Your task to perform on an android device: turn off javascript in the chrome app Image 0: 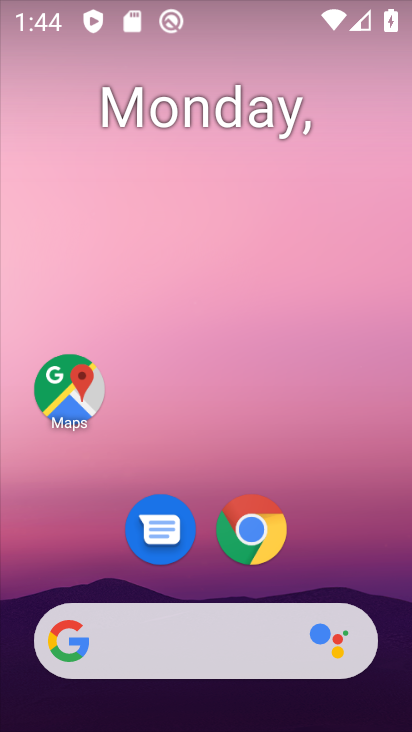
Step 0: click (253, 540)
Your task to perform on an android device: turn off javascript in the chrome app Image 1: 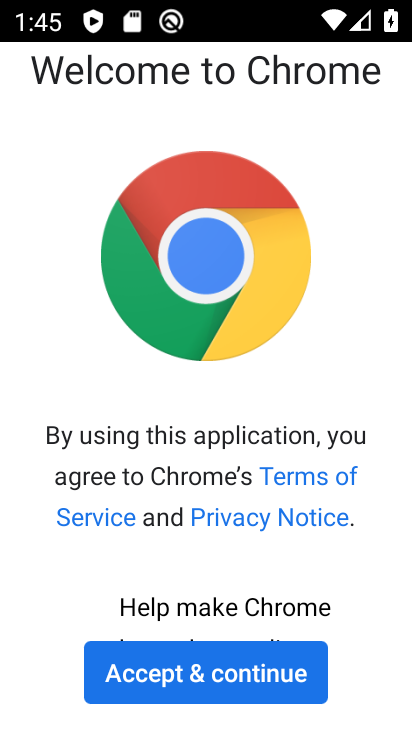
Step 1: click (235, 670)
Your task to perform on an android device: turn off javascript in the chrome app Image 2: 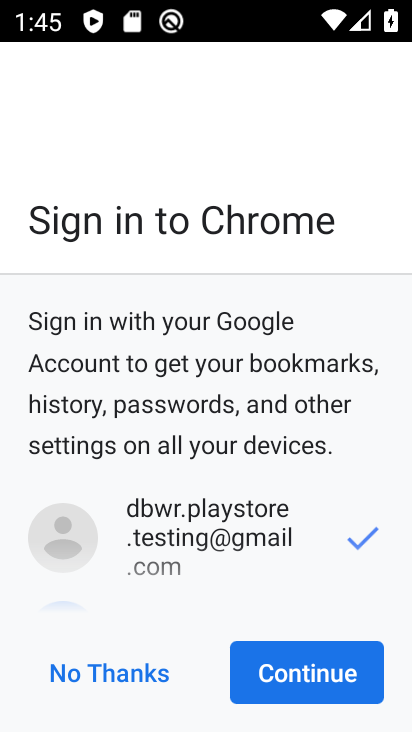
Step 2: click (290, 675)
Your task to perform on an android device: turn off javascript in the chrome app Image 3: 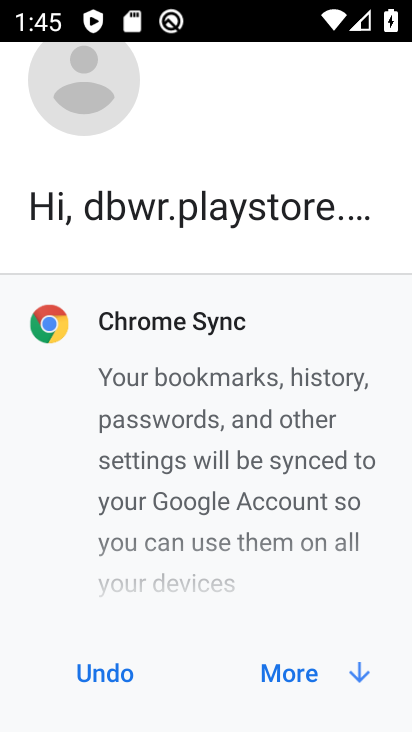
Step 3: click (294, 684)
Your task to perform on an android device: turn off javascript in the chrome app Image 4: 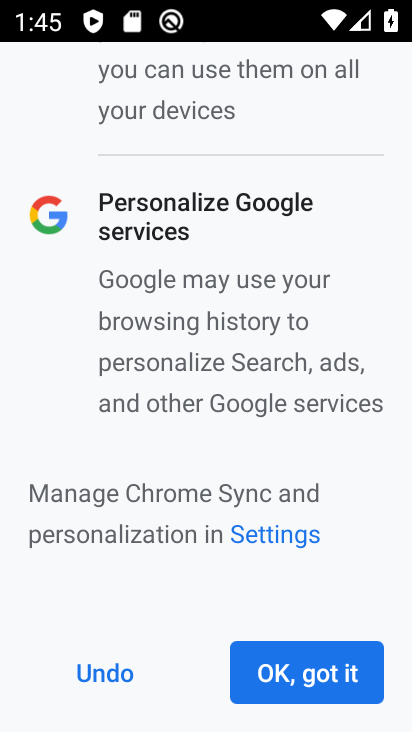
Step 4: click (296, 680)
Your task to perform on an android device: turn off javascript in the chrome app Image 5: 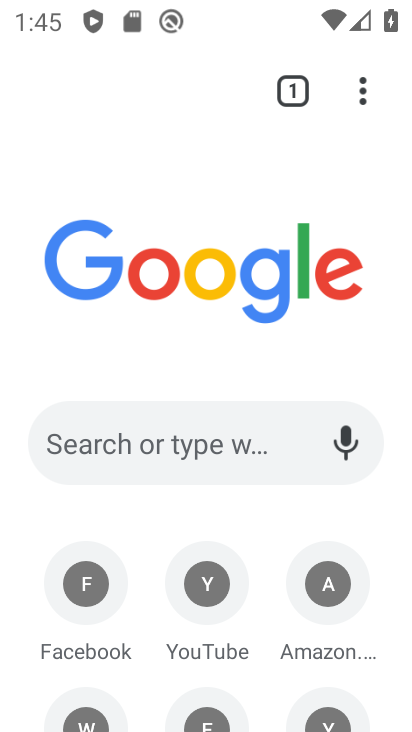
Step 5: click (369, 95)
Your task to perform on an android device: turn off javascript in the chrome app Image 6: 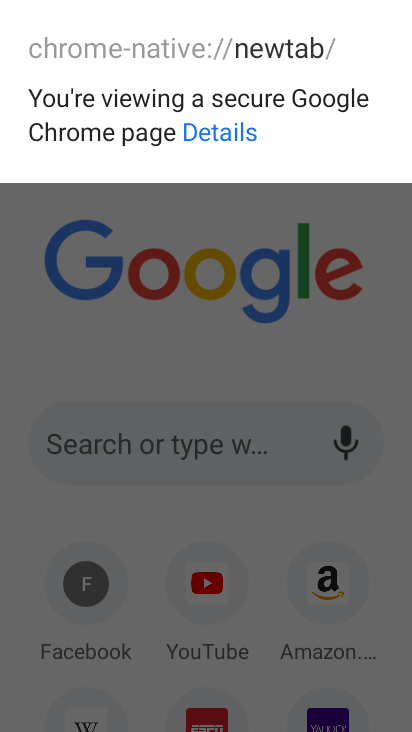
Step 6: click (220, 247)
Your task to perform on an android device: turn off javascript in the chrome app Image 7: 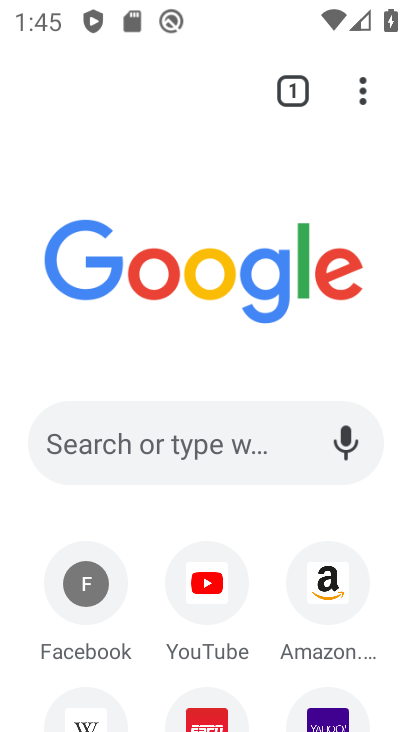
Step 7: click (373, 87)
Your task to perform on an android device: turn off javascript in the chrome app Image 8: 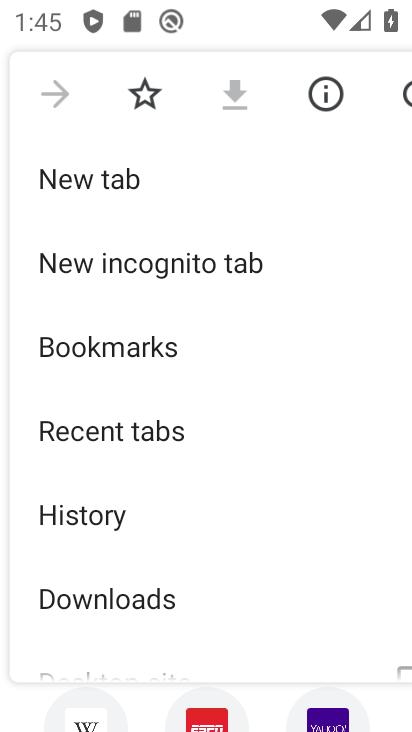
Step 8: drag from (286, 621) to (267, 161)
Your task to perform on an android device: turn off javascript in the chrome app Image 9: 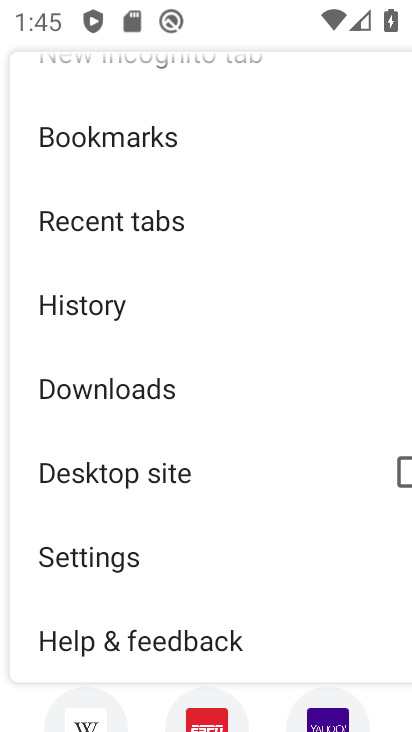
Step 9: click (129, 561)
Your task to perform on an android device: turn off javascript in the chrome app Image 10: 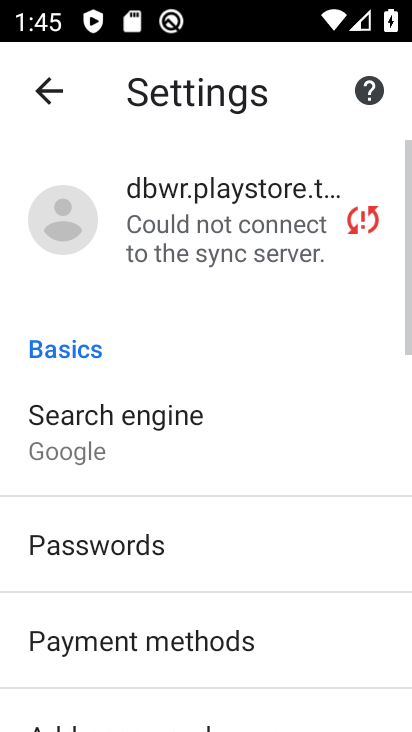
Step 10: drag from (261, 663) to (263, 191)
Your task to perform on an android device: turn off javascript in the chrome app Image 11: 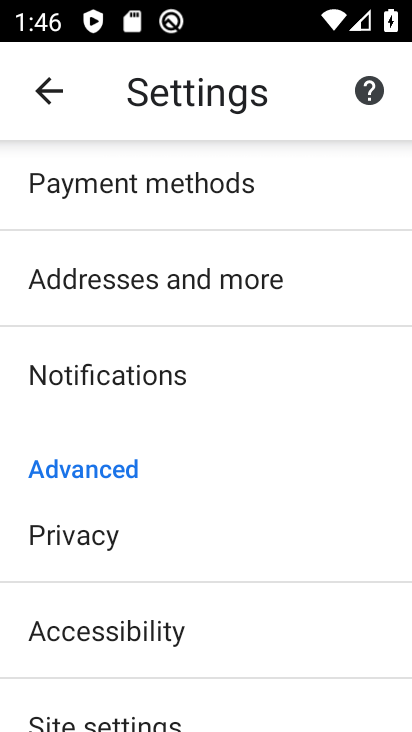
Step 11: drag from (183, 644) to (206, 246)
Your task to perform on an android device: turn off javascript in the chrome app Image 12: 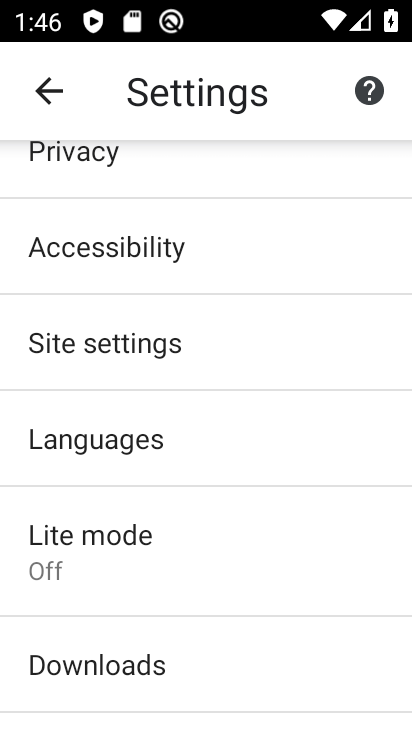
Step 12: click (168, 344)
Your task to perform on an android device: turn off javascript in the chrome app Image 13: 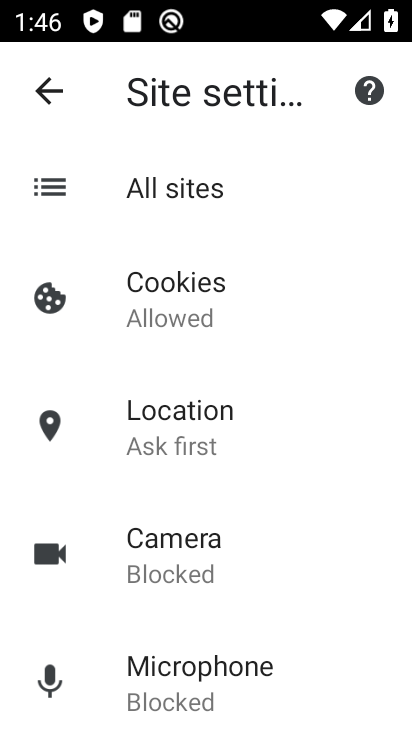
Step 13: drag from (280, 652) to (342, 19)
Your task to perform on an android device: turn off javascript in the chrome app Image 14: 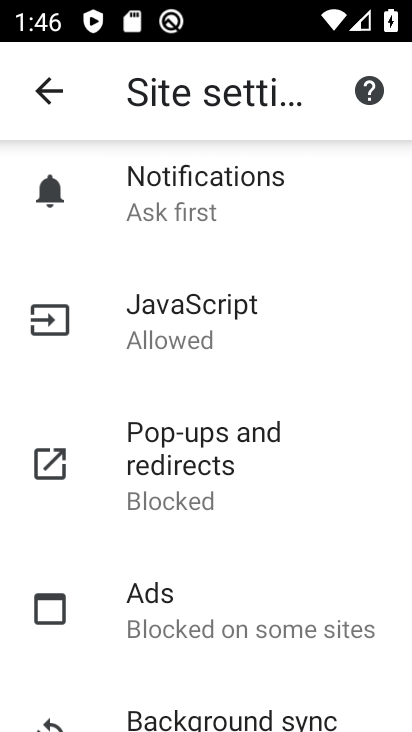
Step 14: click (200, 326)
Your task to perform on an android device: turn off javascript in the chrome app Image 15: 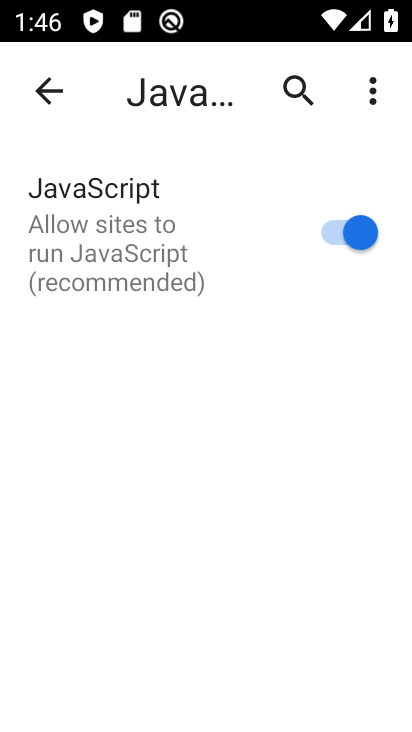
Step 15: click (356, 225)
Your task to perform on an android device: turn off javascript in the chrome app Image 16: 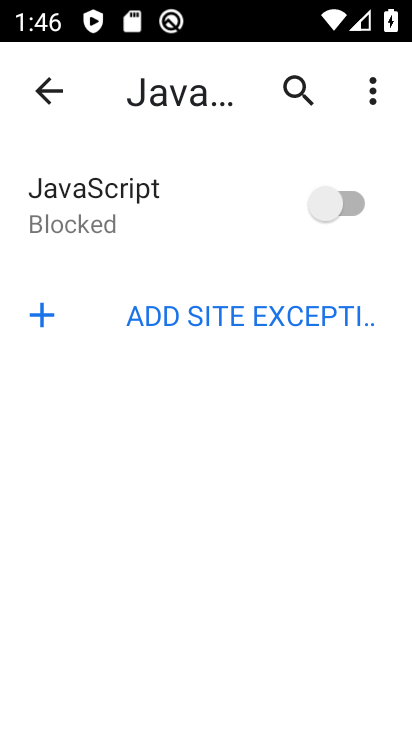
Step 16: task complete